Your task to perform on an android device: Open Maps and search for coffee Image 0: 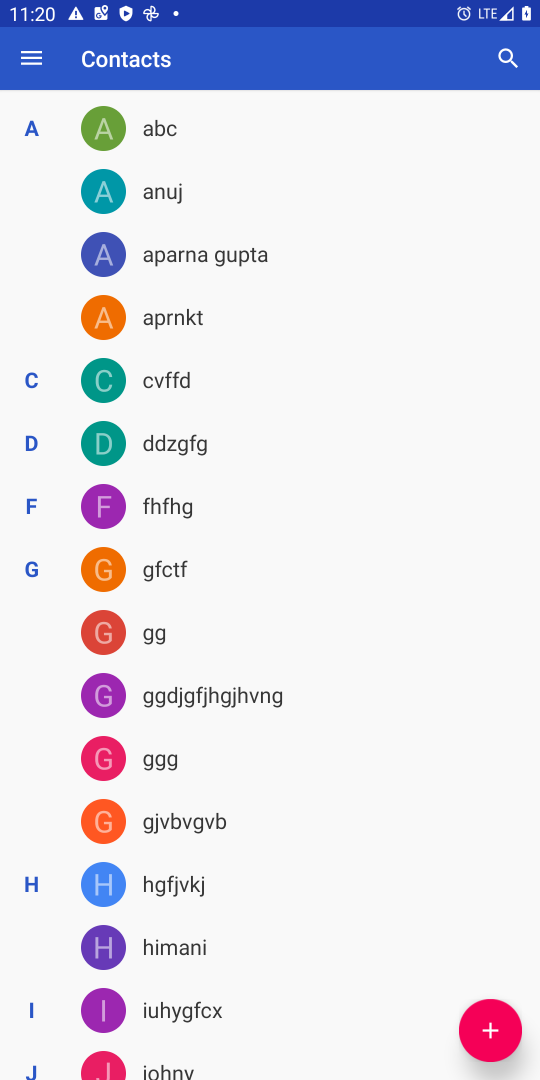
Step 0: press home button
Your task to perform on an android device: Open Maps and search for coffee Image 1: 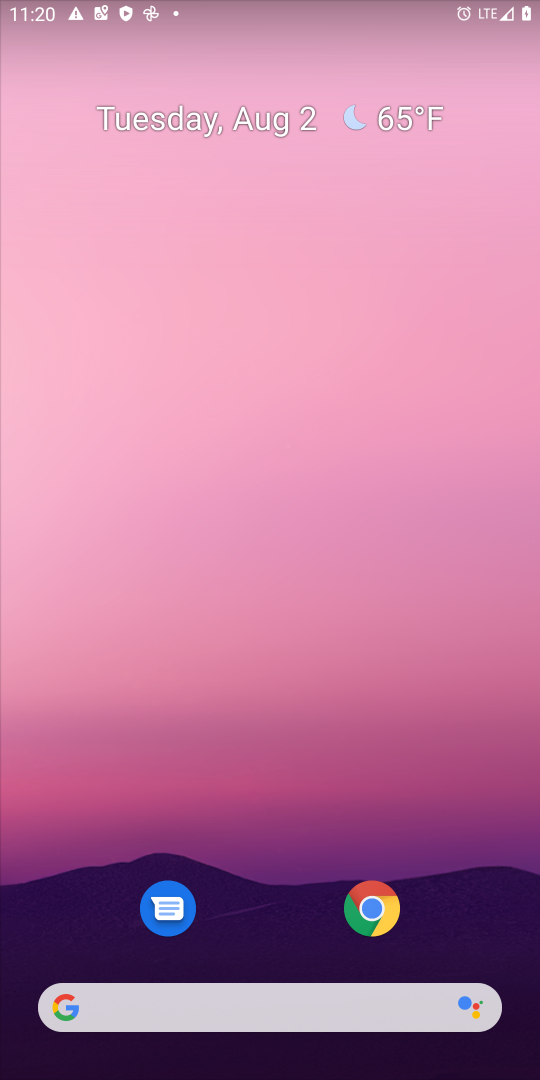
Step 1: drag from (322, 738) to (330, 150)
Your task to perform on an android device: Open Maps and search for coffee Image 2: 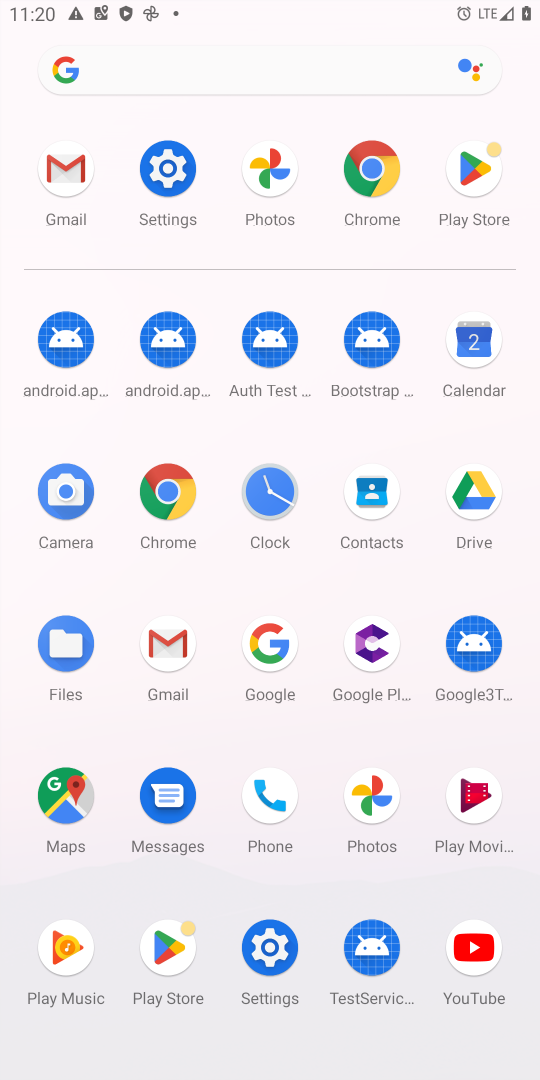
Step 2: click (82, 807)
Your task to perform on an android device: Open Maps and search for coffee Image 3: 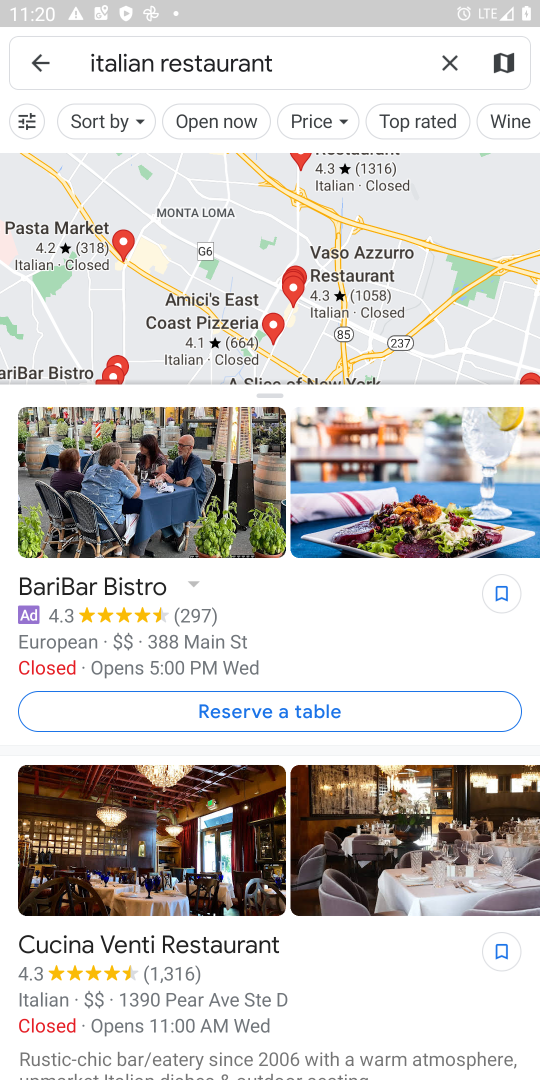
Step 3: click (459, 69)
Your task to perform on an android device: Open Maps and search for coffee Image 4: 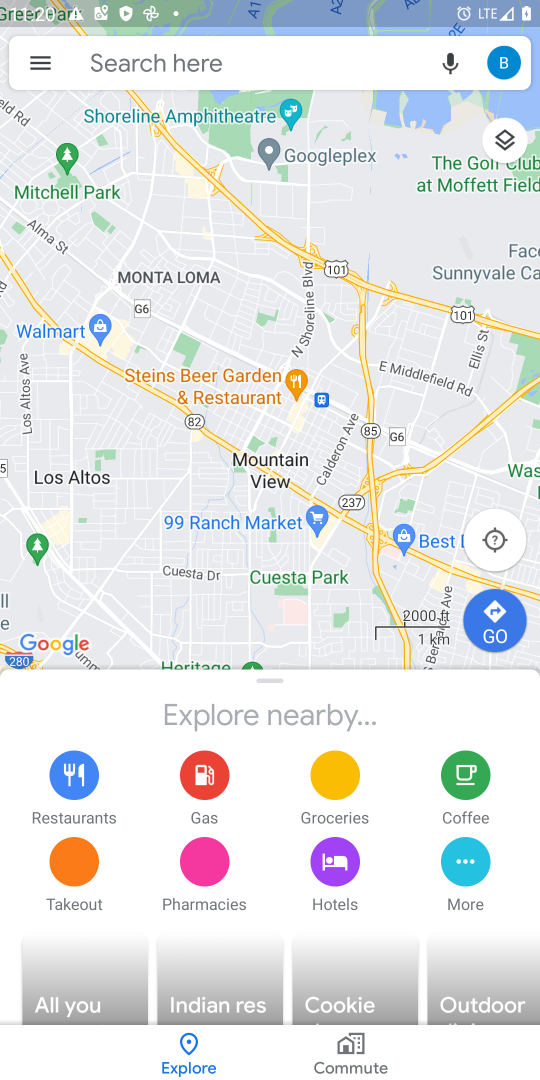
Step 4: click (290, 70)
Your task to perform on an android device: Open Maps and search for coffee Image 5: 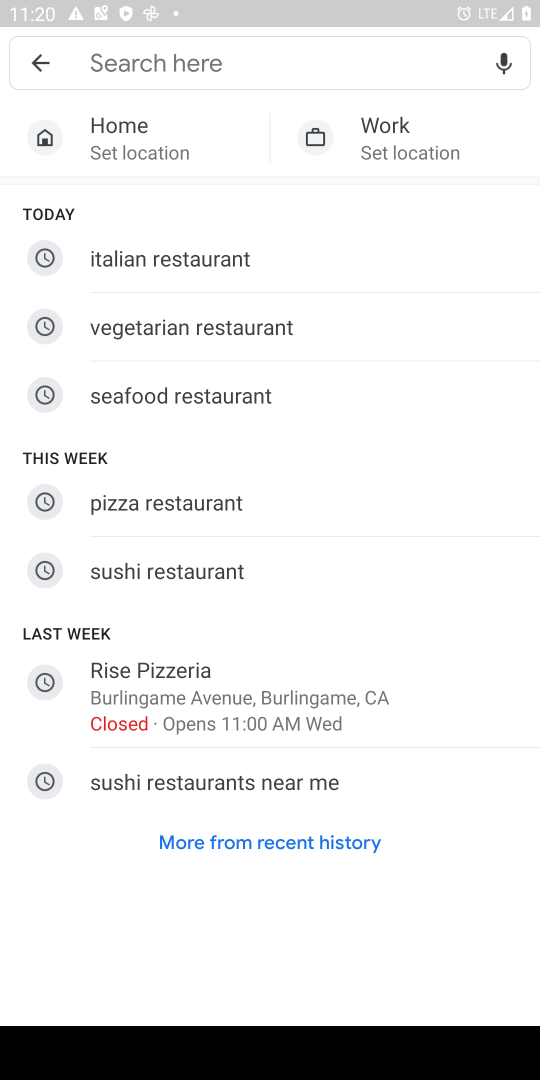
Step 5: type "coffee"
Your task to perform on an android device: Open Maps and search for coffee Image 6: 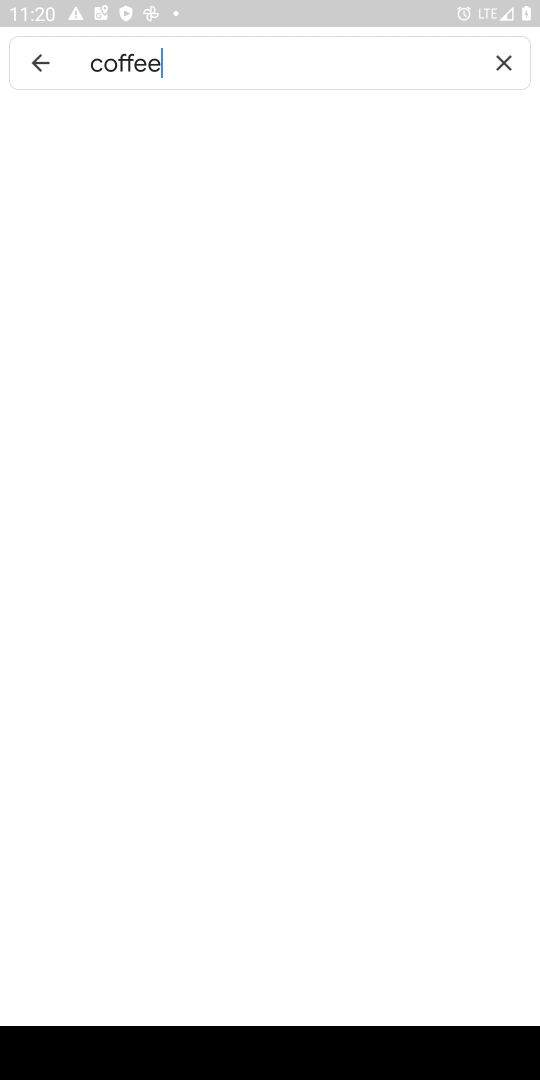
Step 6: type ""
Your task to perform on an android device: Open Maps and search for coffee Image 7: 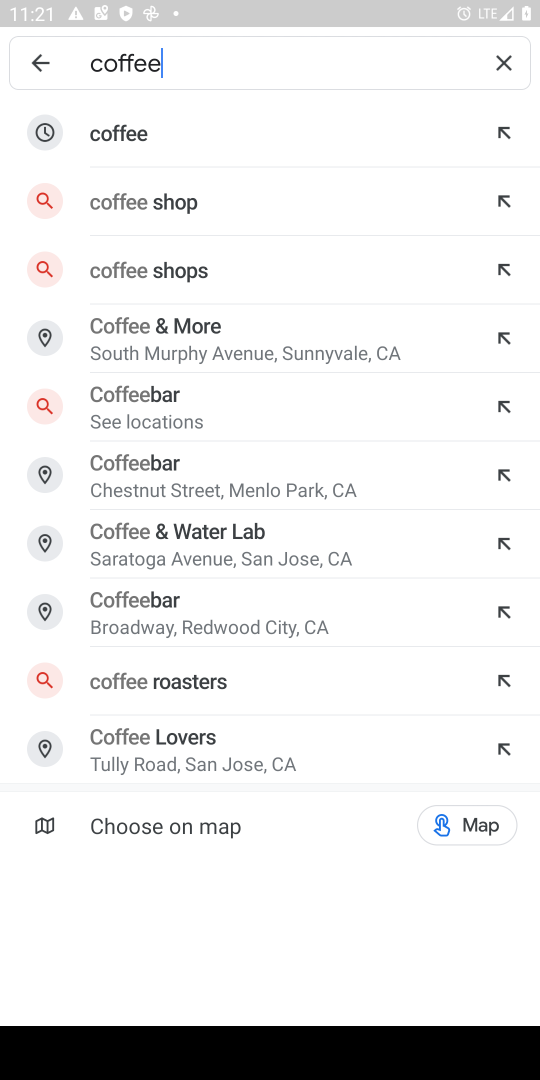
Step 7: click (217, 124)
Your task to perform on an android device: Open Maps and search for coffee Image 8: 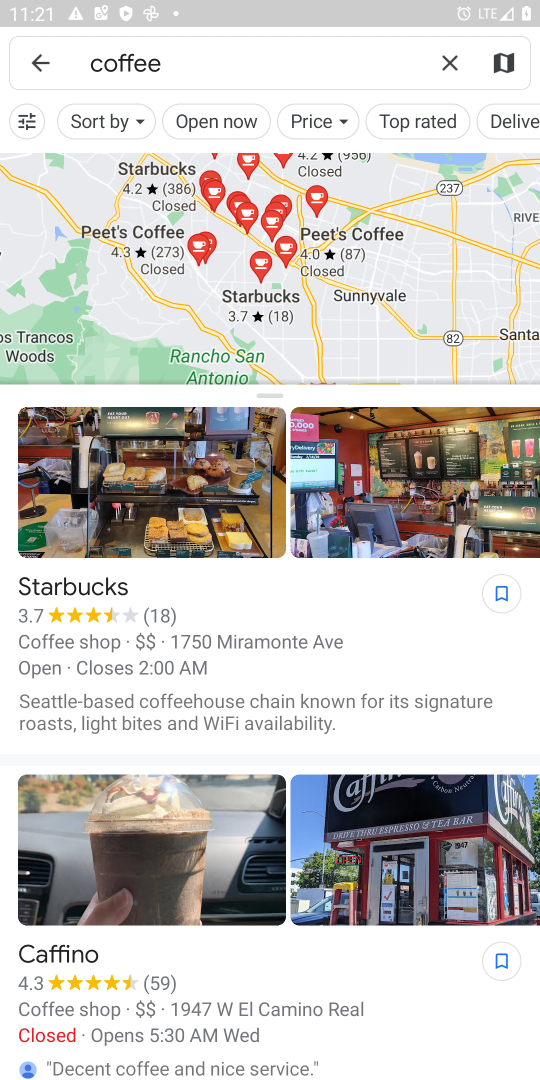
Step 8: task complete